Your task to perform on an android device: turn on wifi Image 0: 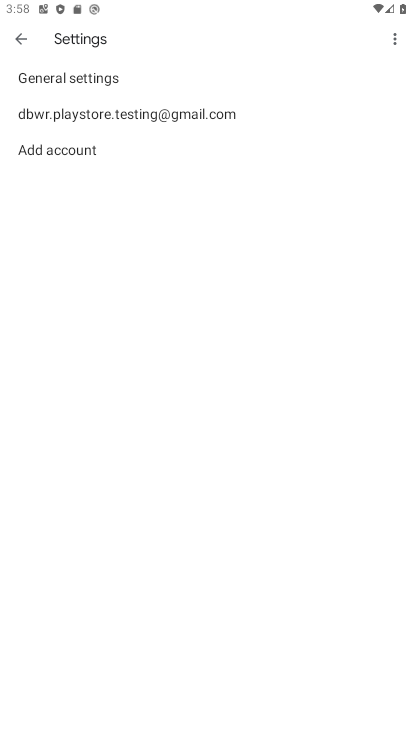
Step 0: drag from (241, 628) to (266, 252)
Your task to perform on an android device: turn on wifi Image 1: 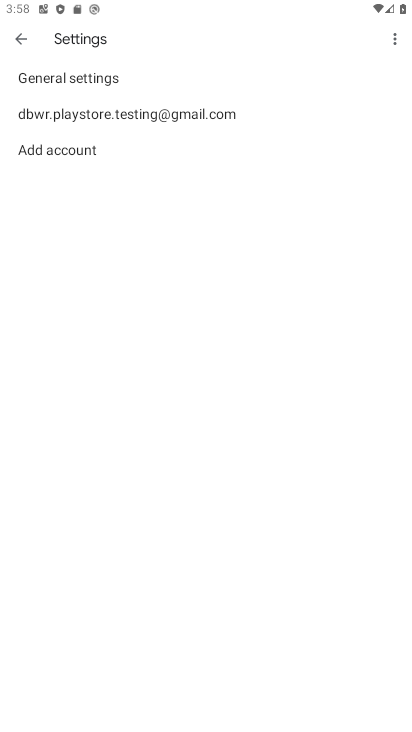
Step 1: task complete